Your task to perform on an android device: Search for pizza restaurants on Maps Image 0: 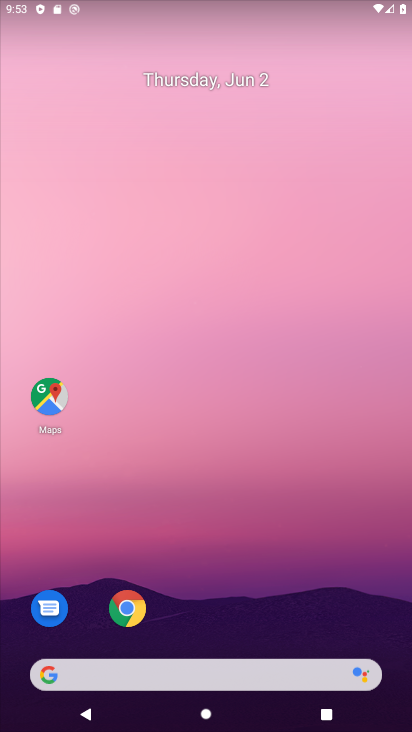
Step 0: click (63, 395)
Your task to perform on an android device: Search for pizza restaurants on Maps Image 1: 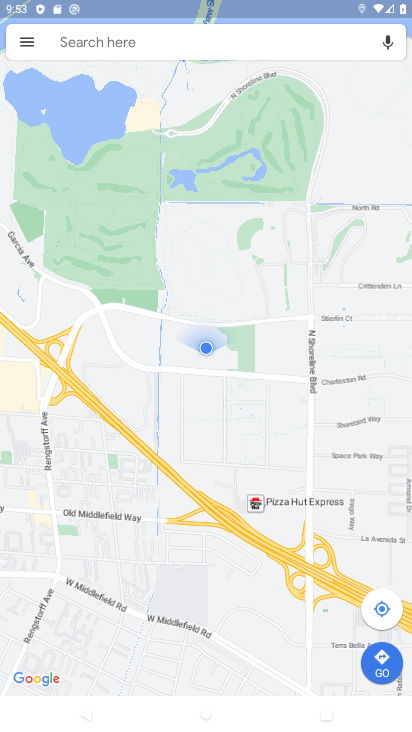
Step 1: click (175, 52)
Your task to perform on an android device: Search for pizza restaurants on Maps Image 2: 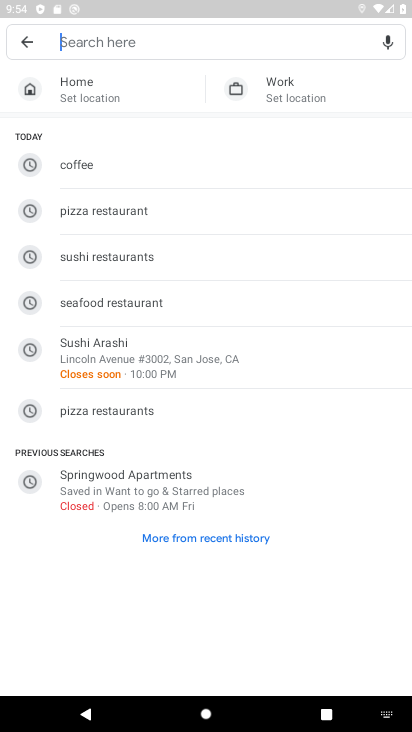
Step 2: type "Pizza restaurants"
Your task to perform on an android device: Search for pizza restaurants on Maps Image 3: 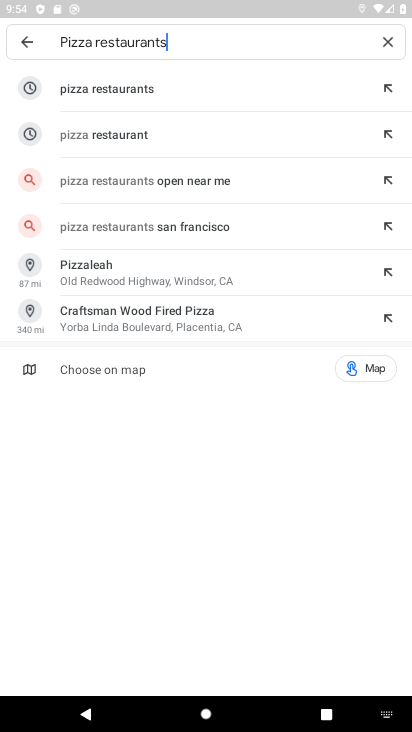
Step 3: click (140, 90)
Your task to perform on an android device: Search for pizza restaurants on Maps Image 4: 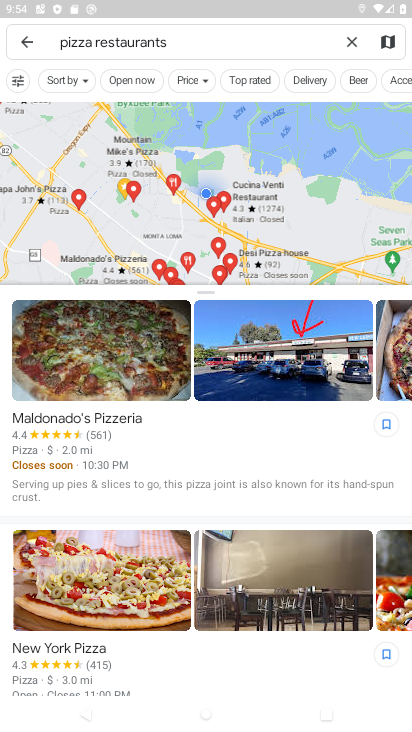
Step 4: task complete